Your task to perform on an android device: Open calendar and show me the third week of next month Image 0: 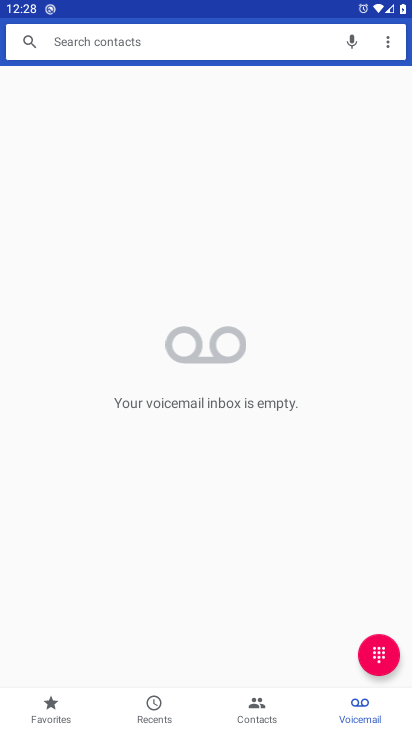
Step 0: press home button
Your task to perform on an android device: Open calendar and show me the third week of next month Image 1: 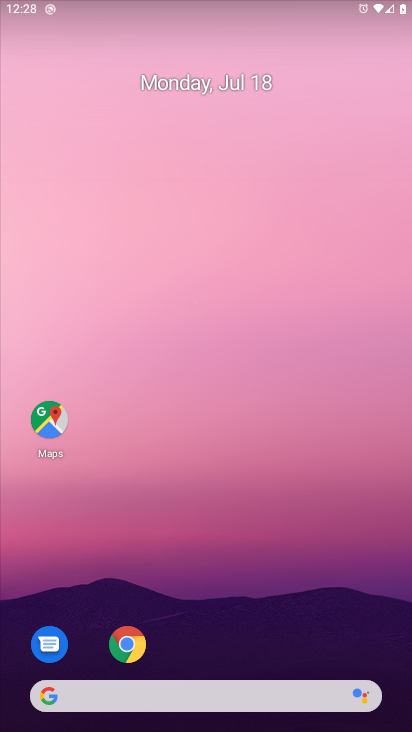
Step 1: drag from (350, 609) to (383, 106)
Your task to perform on an android device: Open calendar and show me the third week of next month Image 2: 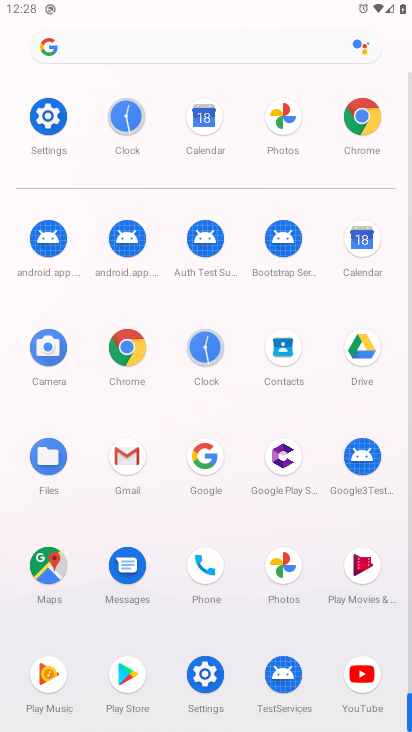
Step 2: click (365, 237)
Your task to perform on an android device: Open calendar and show me the third week of next month Image 3: 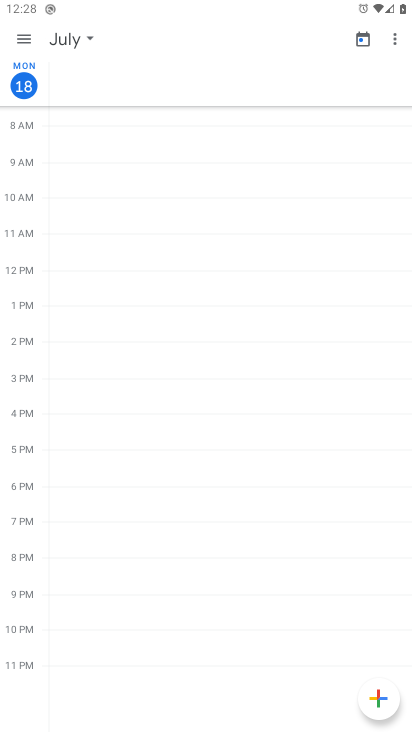
Step 3: click (19, 36)
Your task to perform on an android device: Open calendar and show me the third week of next month Image 4: 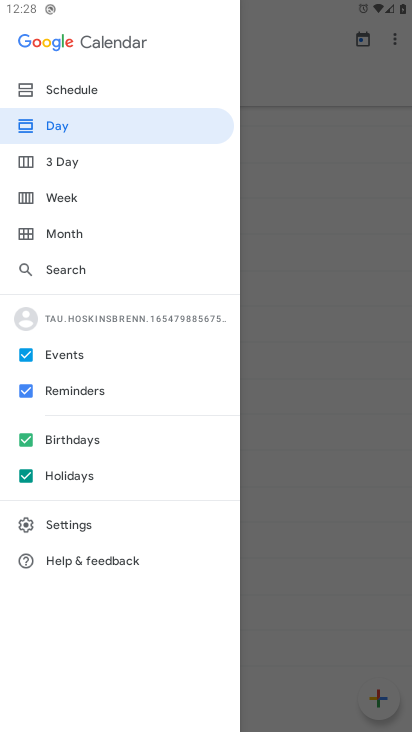
Step 4: click (68, 198)
Your task to perform on an android device: Open calendar and show me the third week of next month Image 5: 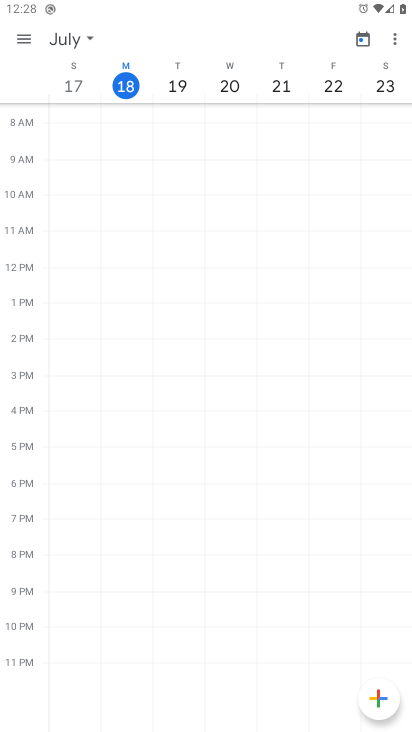
Step 5: task complete